Your task to perform on an android device: Go to Reddit.com Image 0: 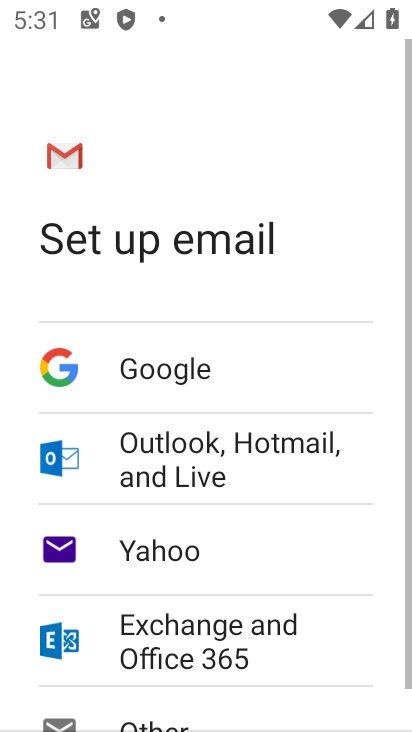
Step 0: press home button
Your task to perform on an android device: Go to Reddit.com Image 1: 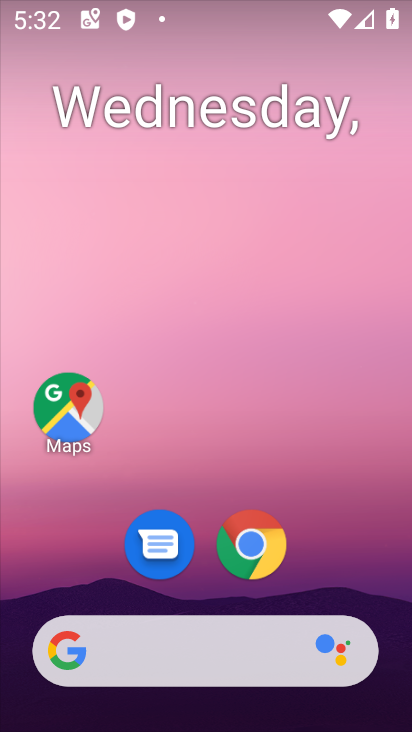
Step 1: click (264, 545)
Your task to perform on an android device: Go to Reddit.com Image 2: 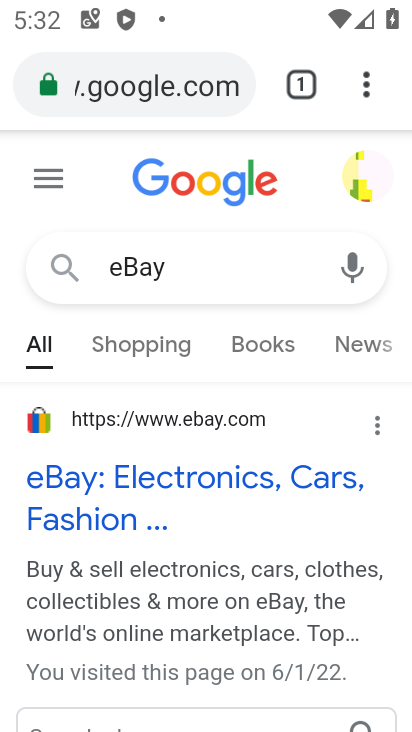
Step 2: click (232, 81)
Your task to perform on an android device: Go to Reddit.com Image 3: 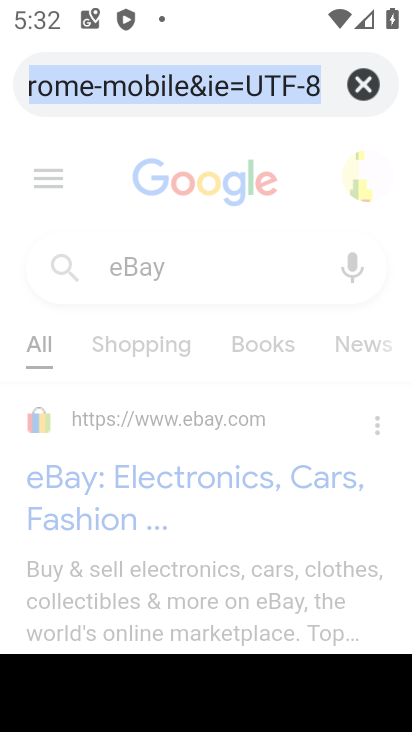
Step 3: click (355, 88)
Your task to perform on an android device: Go to Reddit.com Image 4: 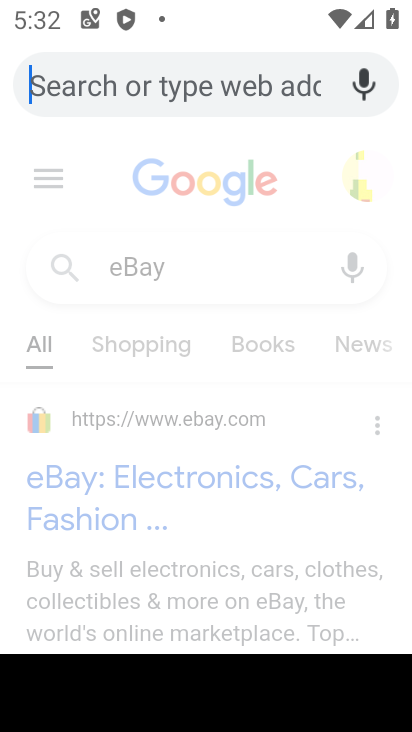
Step 4: type "Reddit.com"
Your task to perform on an android device: Go to Reddit.com Image 5: 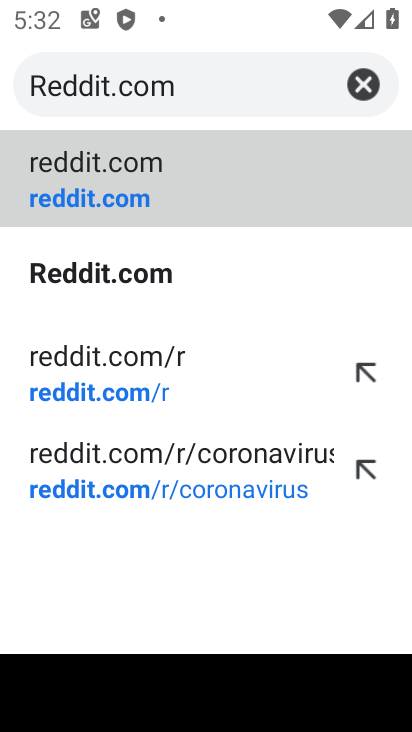
Step 5: click (129, 272)
Your task to perform on an android device: Go to Reddit.com Image 6: 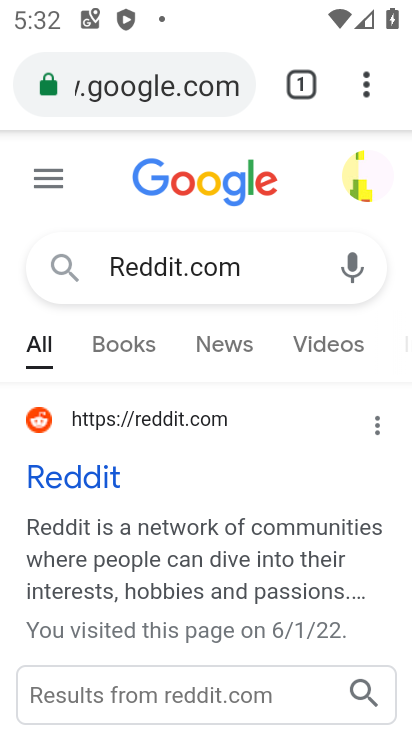
Step 6: task complete